Your task to perform on an android device: When is my next appointment? Image 0: 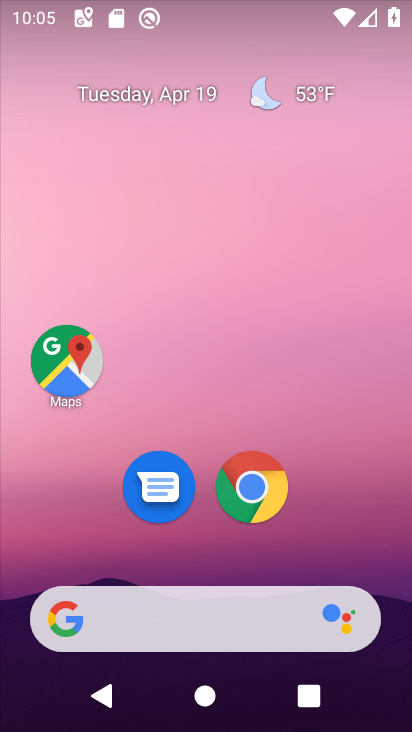
Step 0: drag from (366, 553) to (307, 3)
Your task to perform on an android device: When is my next appointment? Image 1: 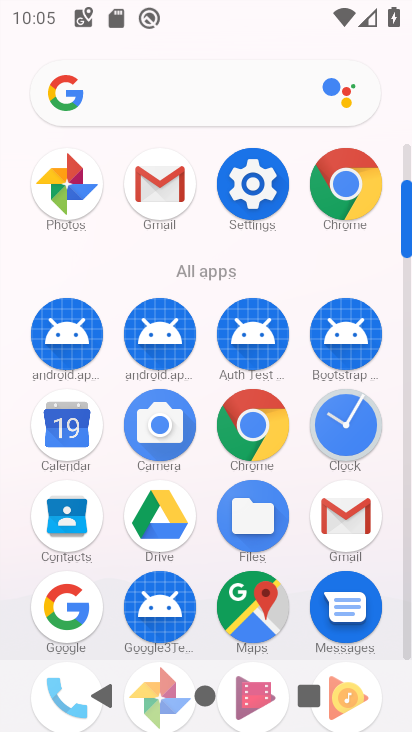
Step 1: drag from (5, 517) to (8, 259)
Your task to perform on an android device: When is my next appointment? Image 2: 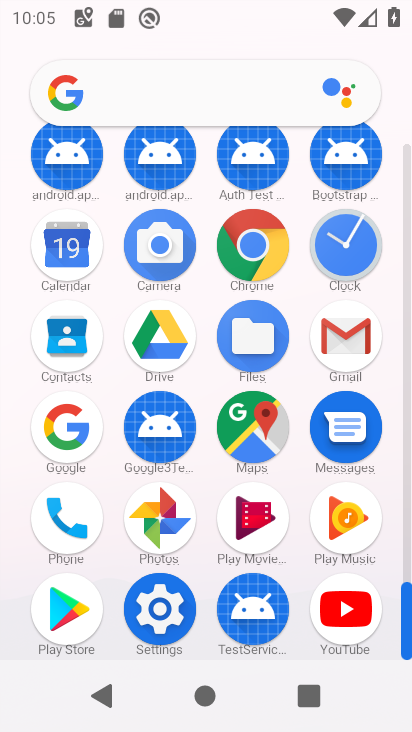
Step 2: drag from (23, 275) to (19, 541)
Your task to perform on an android device: When is my next appointment? Image 3: 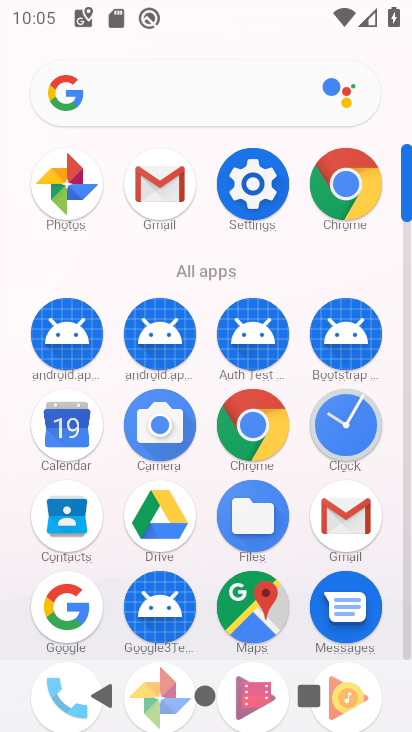
Step 3: click (61, 426)
Your task to perform on an android device: When is my next appointment? Image 4: 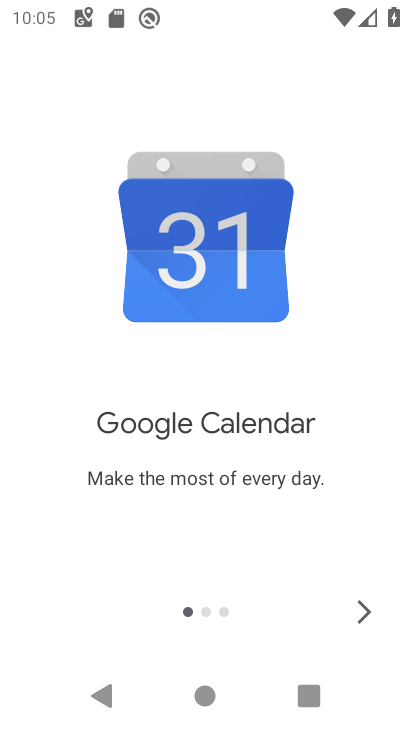
Step 4: click (359, 605)
Your task to perform on an android device: When is my next appointment? Image 5: 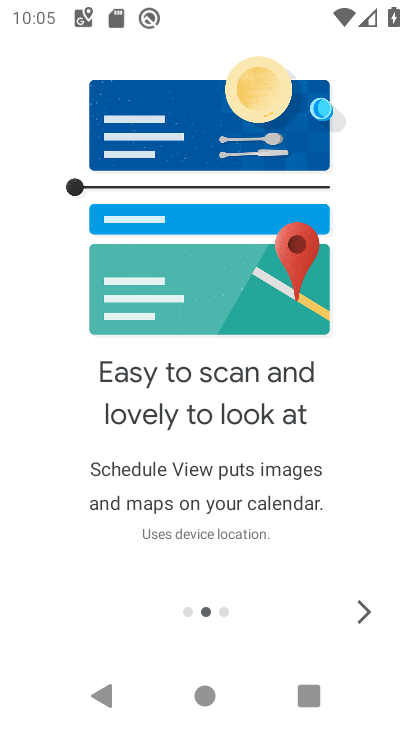
Step 5: click (359, 605)
Your task to perform on an android device: When is my next appointment? Image 6: 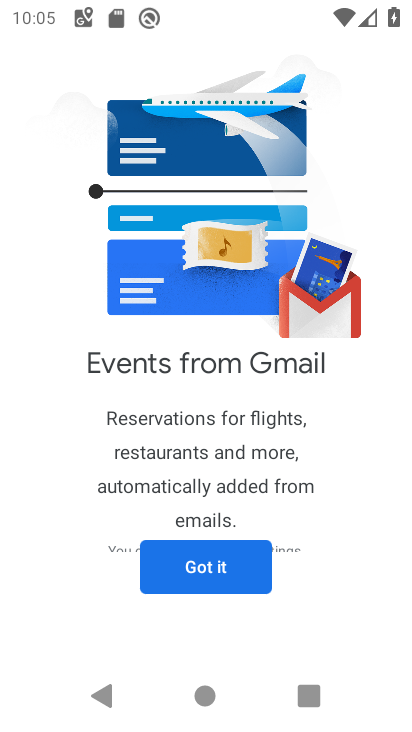
Step 6: click (211, 569)
Your task to perform on an android device: When is my next appointment? Image 7: 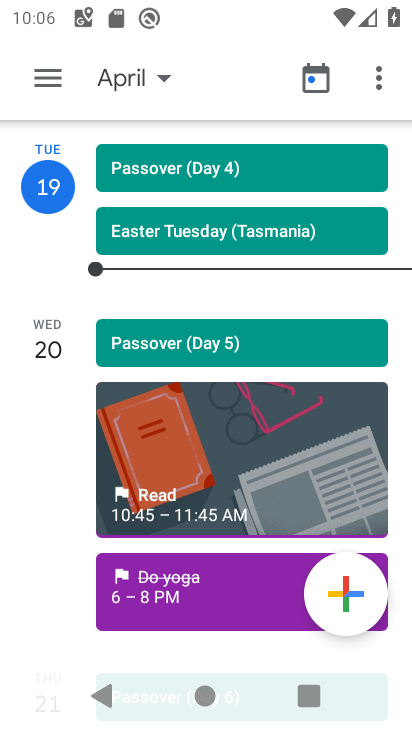
Step 7: click (53, 78)
Your task to perform on an android device: When is my next appointment? Image 8: 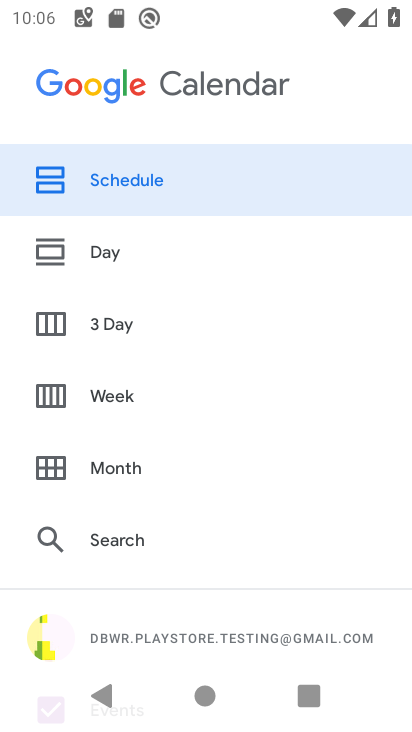
Step 8: drag from (177, 469) to (183, 95)
Your task to perform on an android device: When is my next appointment? Image 9: 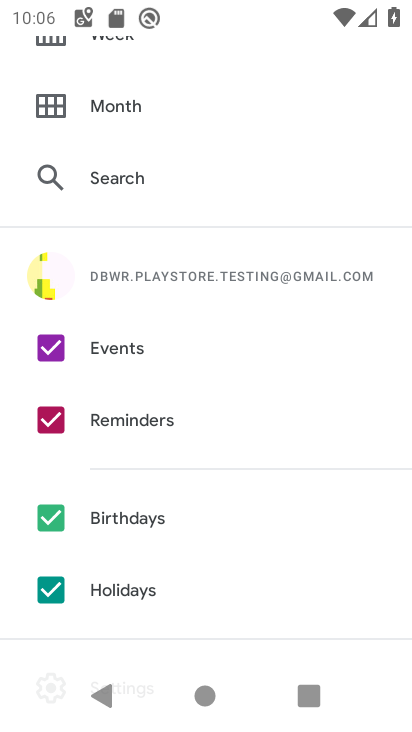
Step 9: drag from (196, 495) to (210, 147)
Your task to perform on an android device: When is my next appointment? Image 10: 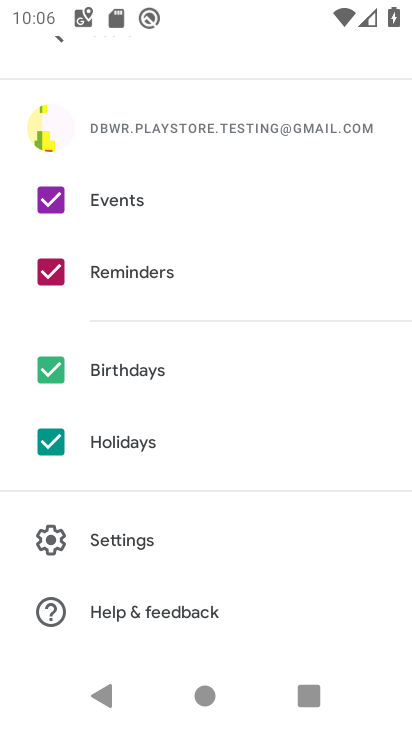
Step 10: click (57, 439)
Your task to perform on an android device: When is my next appointment? Image 11: 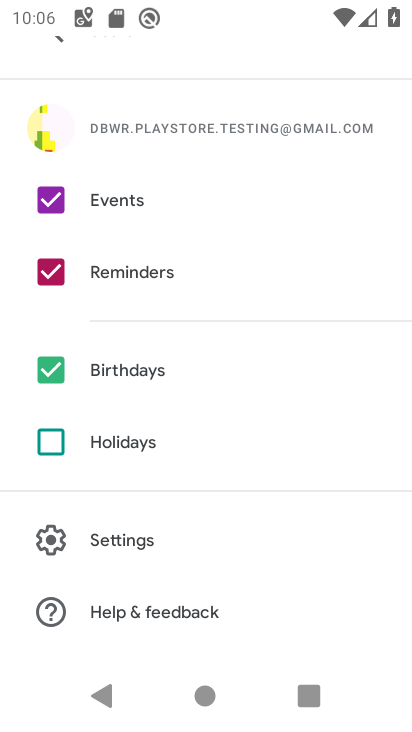
Step 11: click (55, 373)
Your task to perform on an android device: When is my next appointment? Image 12: 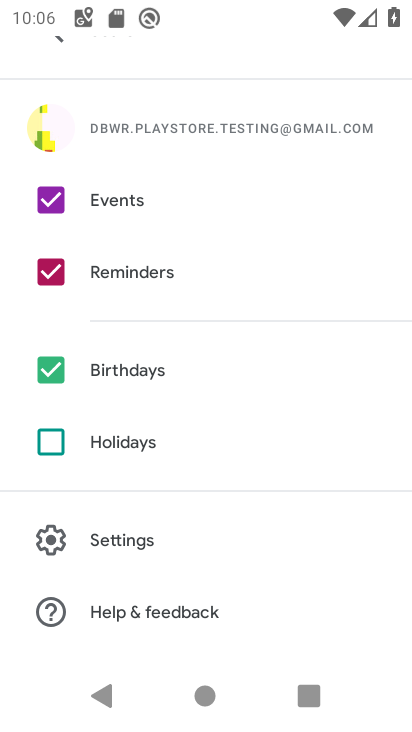
Step 12: click (55, 371)
Your task to perform on an android device: When is my next appointment? Image 13: 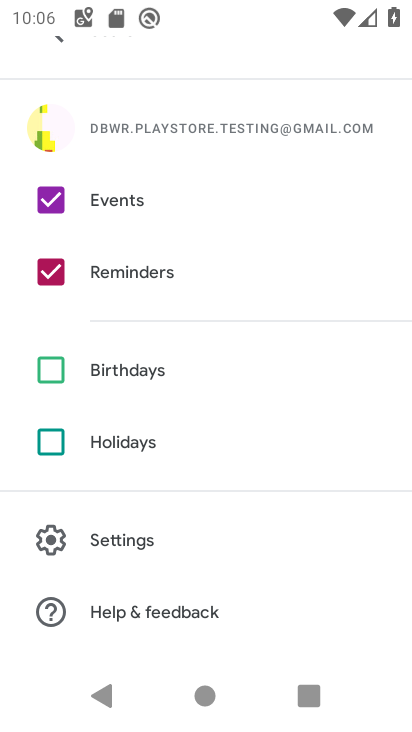
Step 13: click (54, 267)
Your task to perform on an android device: When is my next appointment? Image 14: 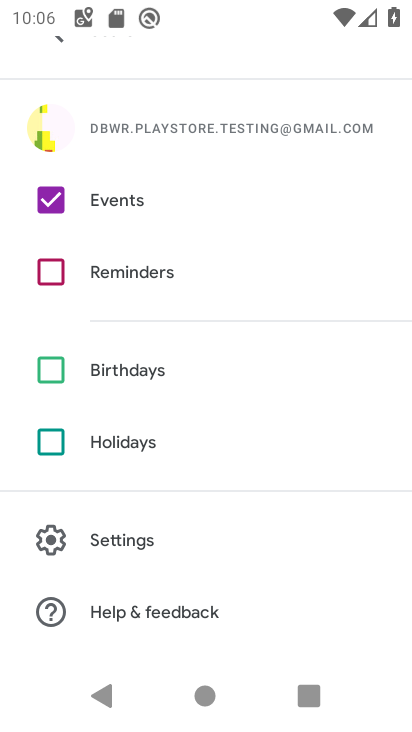
Step 14: drag from (303, 341) to (287, 543)
Your task to perform on an android device: When is my next appointment? Image 15: 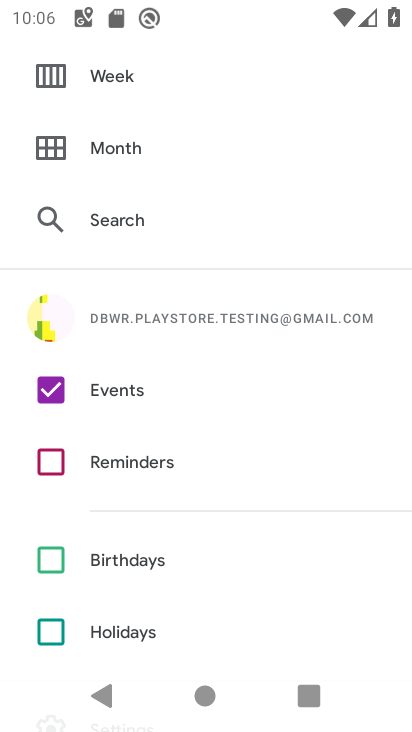
Step 15: drag from (270, 158) to (263, 576)
Your task to perform on an android device: When is my next appointment? Image 16: 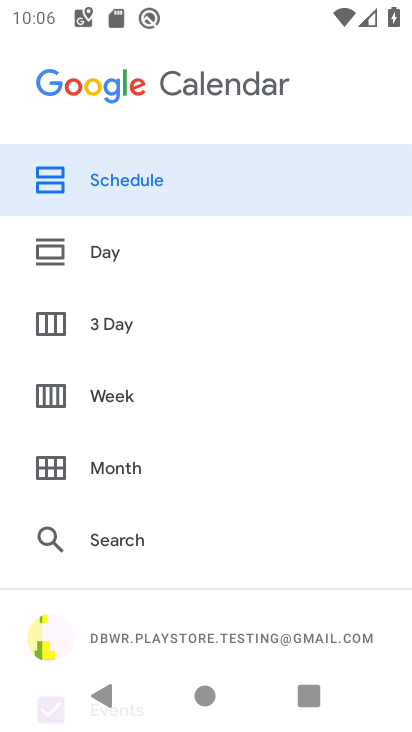
Step 16: click (182, 189)
Your task to perform on an android device: When is my next appointment? Image 17: 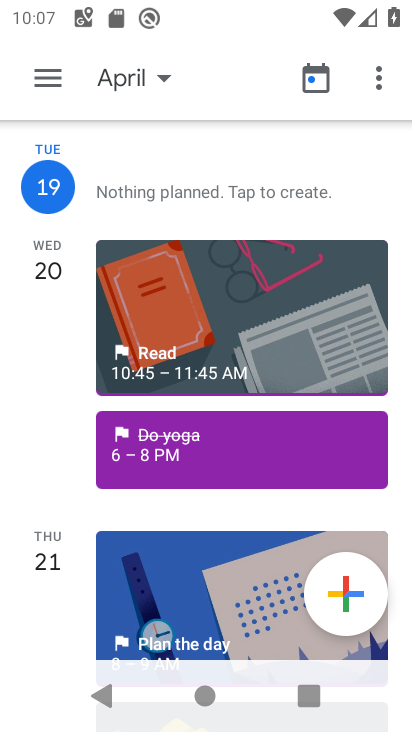
Step 17: task complete